Your task to perform on an android device: Go to Reddit.com Image 0: 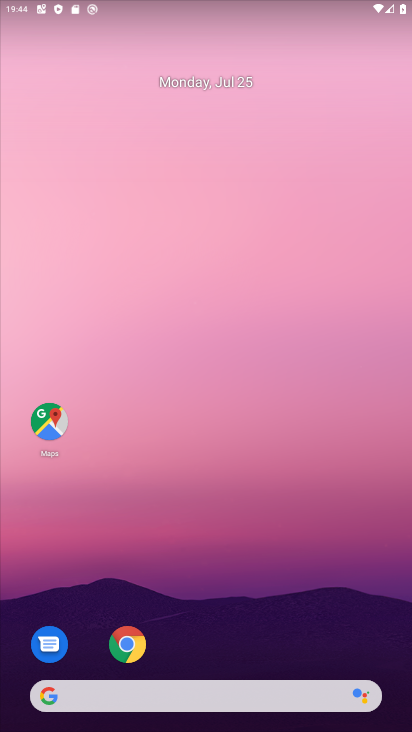
Step 0: click (125, 638)
Your task to perform on an android device: Go to Reddit.com Image 1: 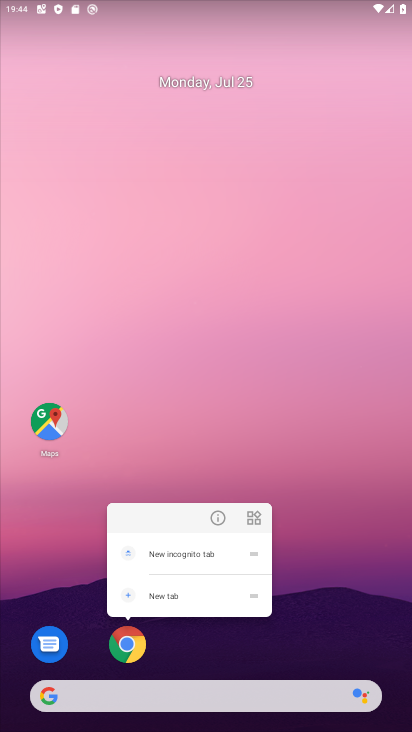
Step 1: click (125, 638)
Your task to perform on an android device: Go to Reddit.com Image 2: 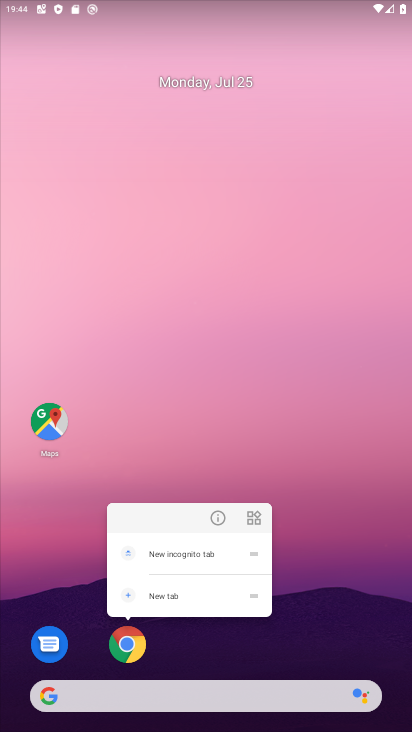
Step 2: click (214, 649)
Your task to perform on an android device: Go to Reddit.com Image 3: 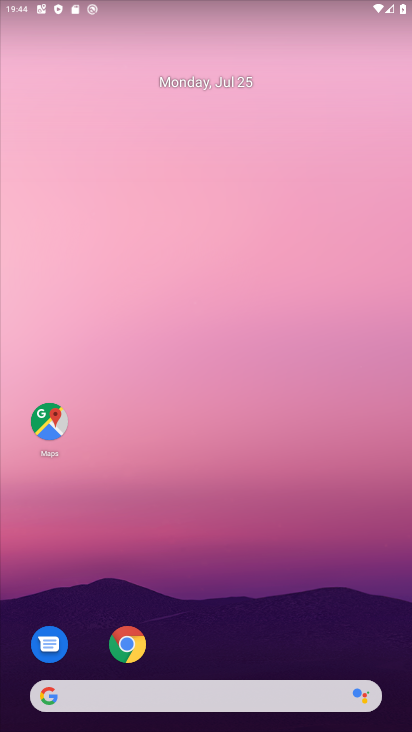
Step 3: drag from (298, 661) to (322, 143)
Your task to perform on an android device: Go to Reddit.com Image 4: 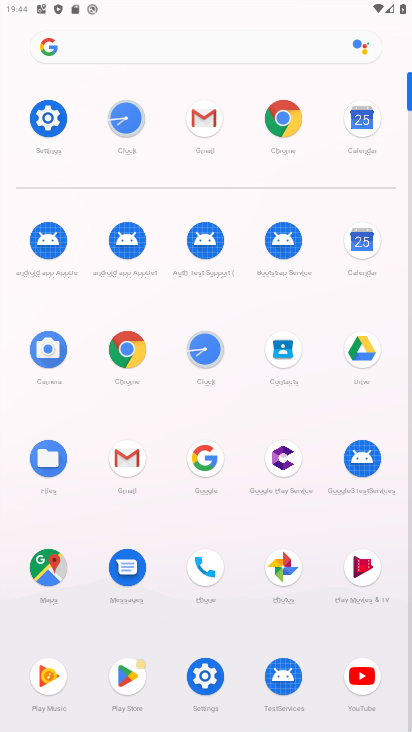
Step 4: click (281, 115)
Your task to perform on an android device: Go to Reddit.com Image 5: 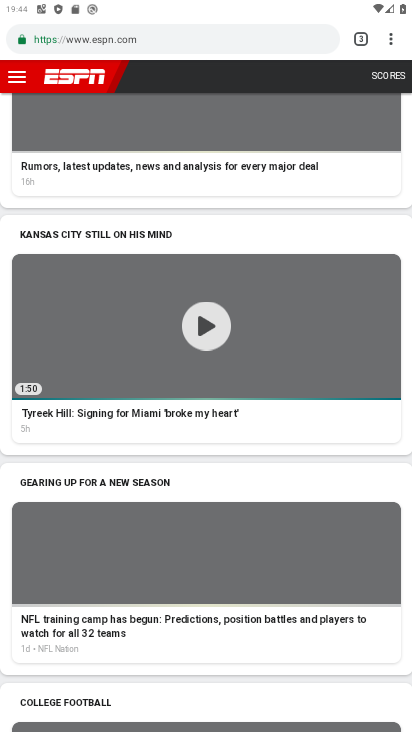
Step 5: drag from (221, 107) to (236, 382)
Your task to perform on an android device: Go to Reddit.com Image 6: 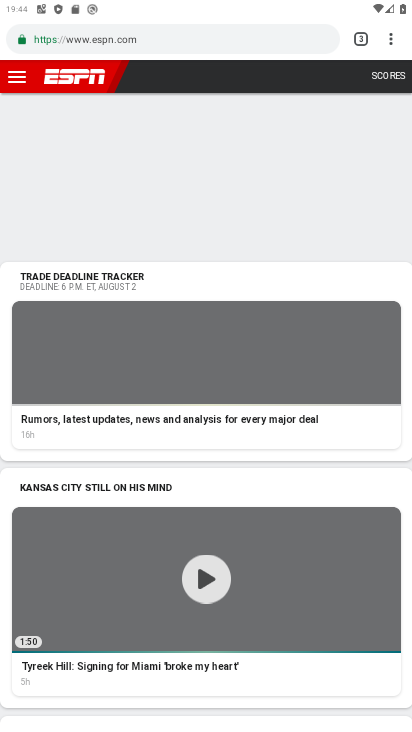
Step 6: click (360, 32)
Your task to perform on an android device: Go to Reddit.com Image 7: 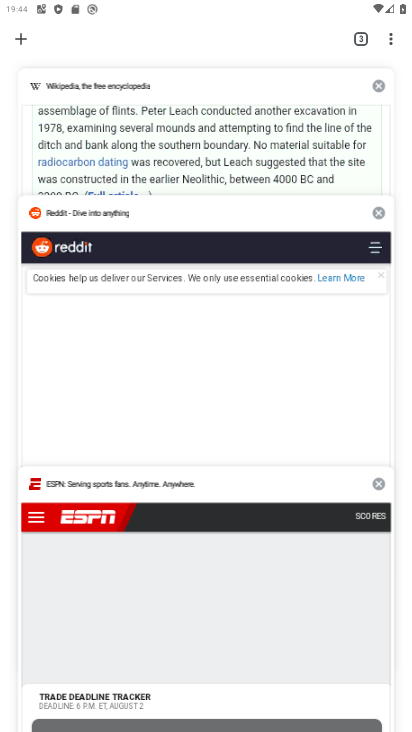
Step 7: click (124, 335)
Your task to perform on an android device: Go to Reddit.com Image 8: 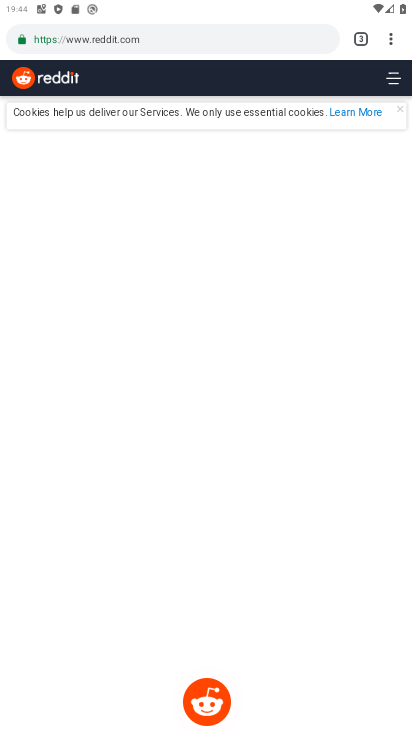
Step 8: task complete